Your task to perform on an android device: Go to battery settings Image 0: 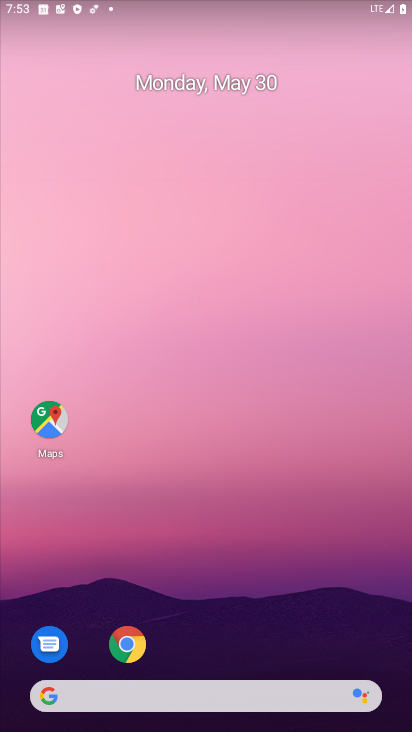
Step 0: drag from (220, 616) to (204, 120)
Your task to perform on an android device: Go to battery settings Image 1: 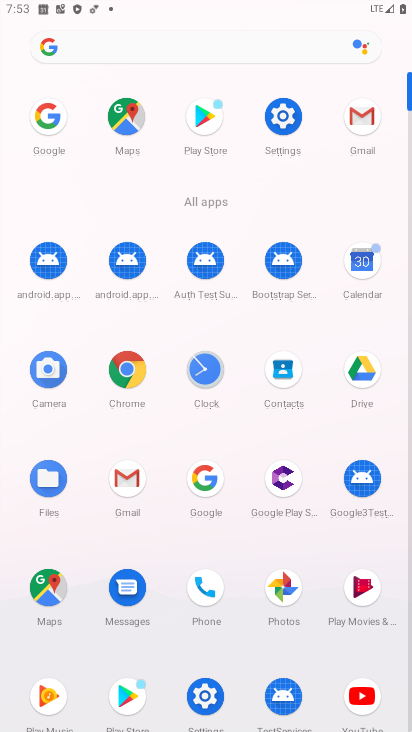
Step 1: click (284, 115)
Your task to perform on an android device: Go to battery settings Image 2: 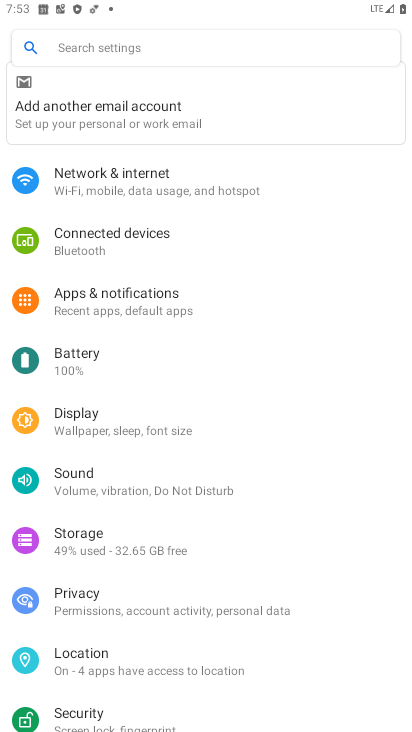
Step 2: click (96, 359)
Your task to perform on an android device: Go to battery settings Image 3: 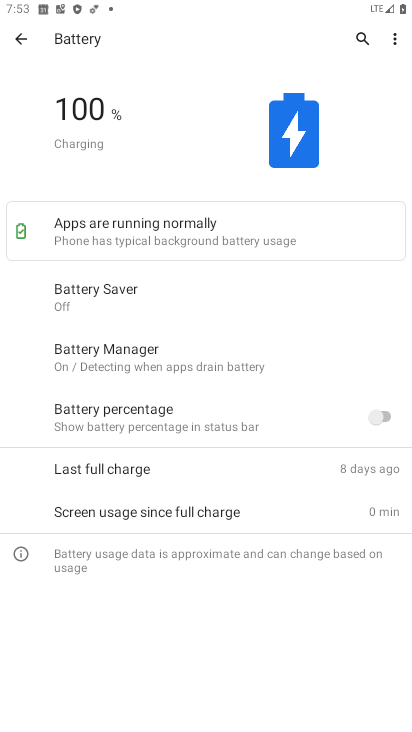
Step 3: task complete